Your task to perform on an android device: change text size in settings app Image 0: 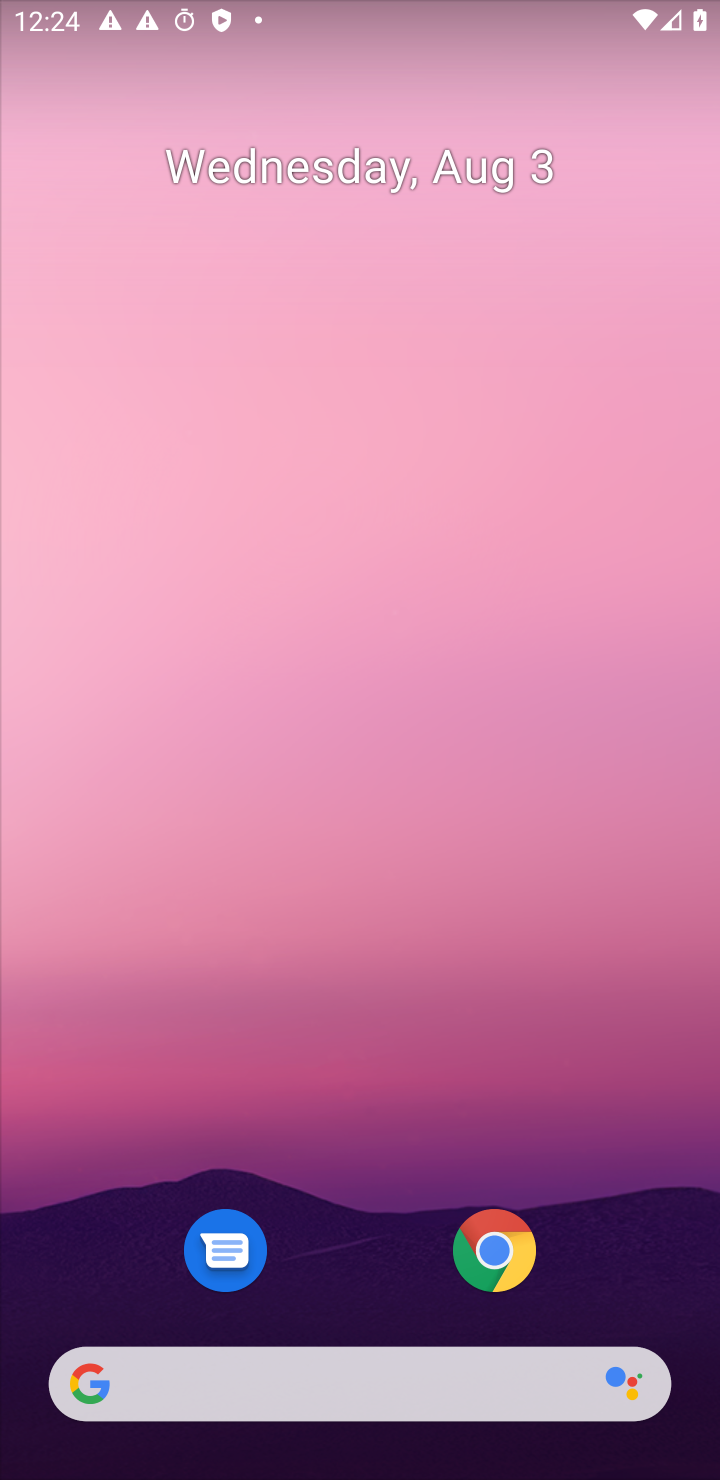
Step 0: drag from (361, 1281) to (458, 67)
Your task to perform on an android device: change text size in settings app Image 1: 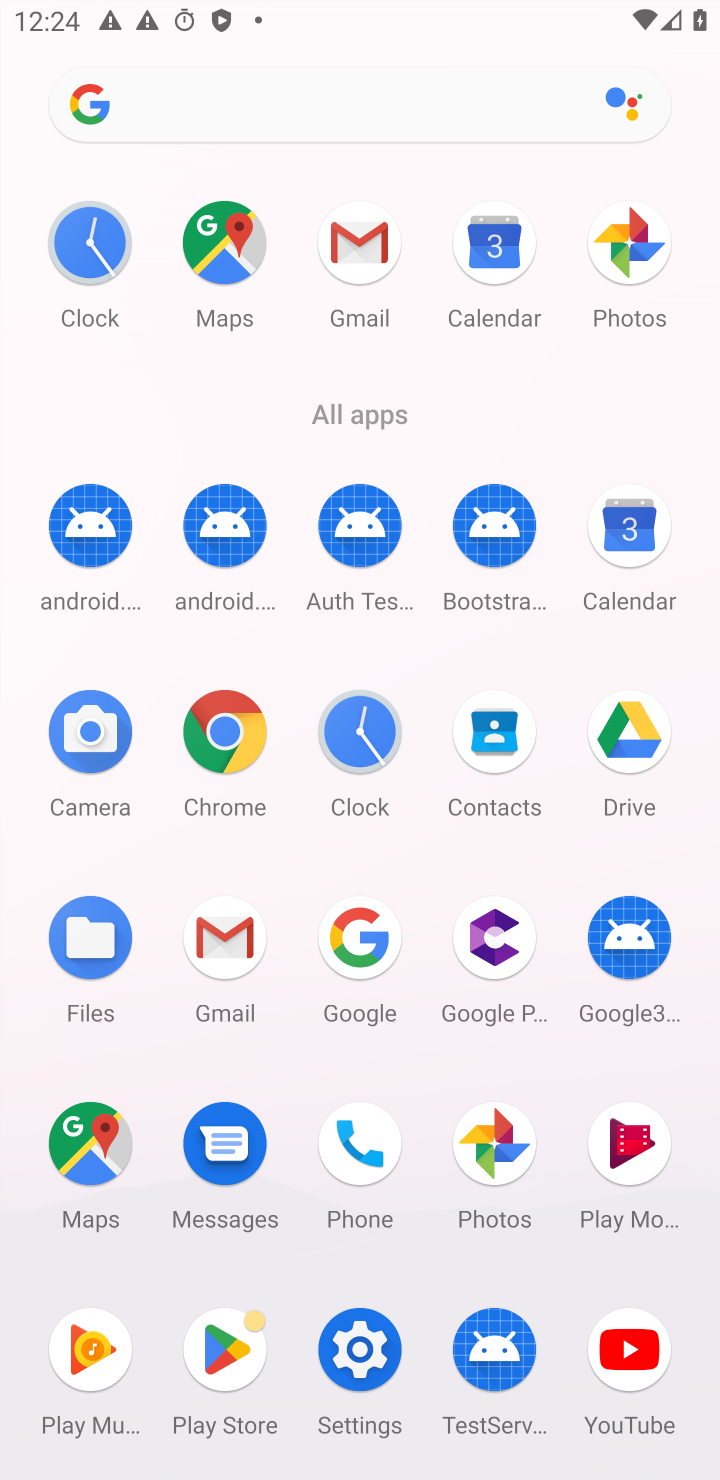
Step 1: click (371, 1332)
Your task to perform on an android device: change text size in settings app Image 2: 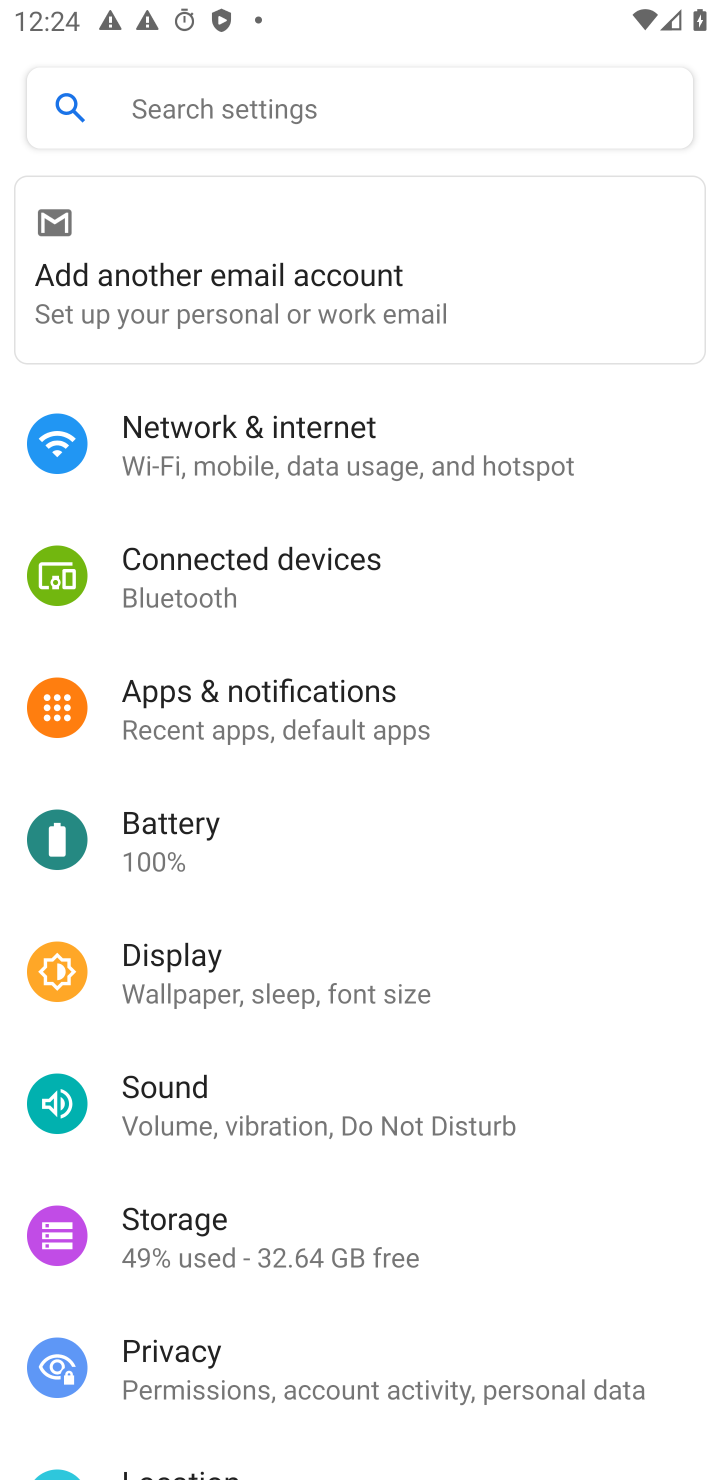
Step 2: click (324, 988)
Your task to perform on an android device: change text size in settings app Image 3: 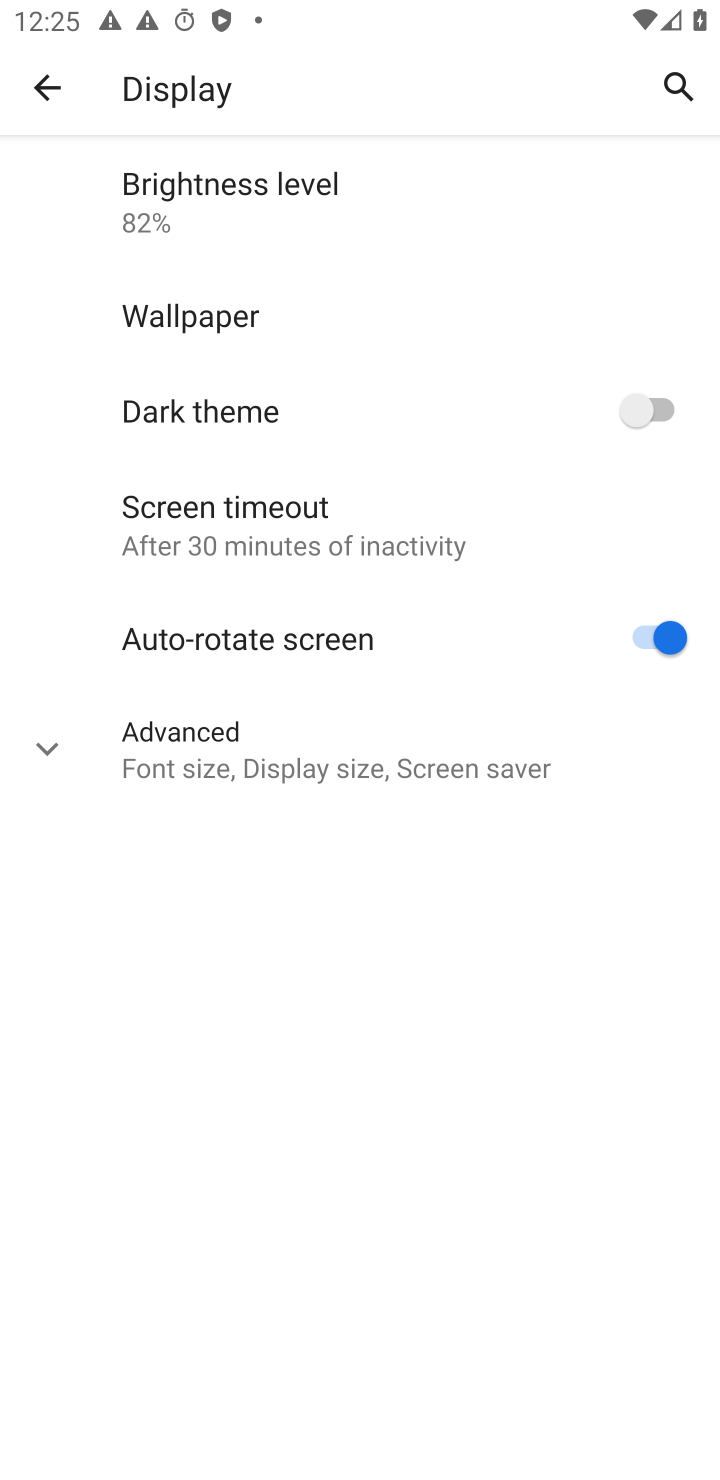
Step 3: click (363, 760)
Your task to perform on an android device: change text size in settings app Image 4: 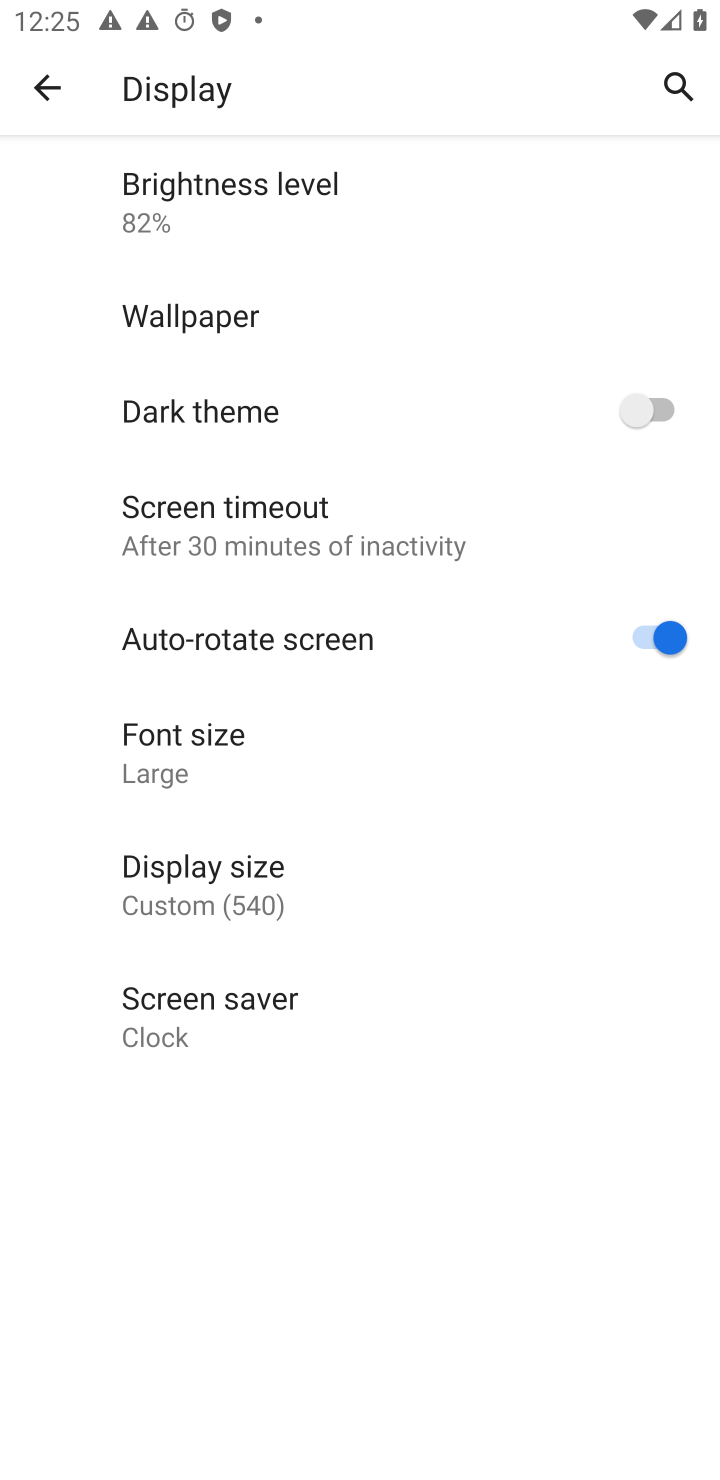
Step 4: click (302, 744)
Your task to perform on an android device: change text size in settings app Image 5: 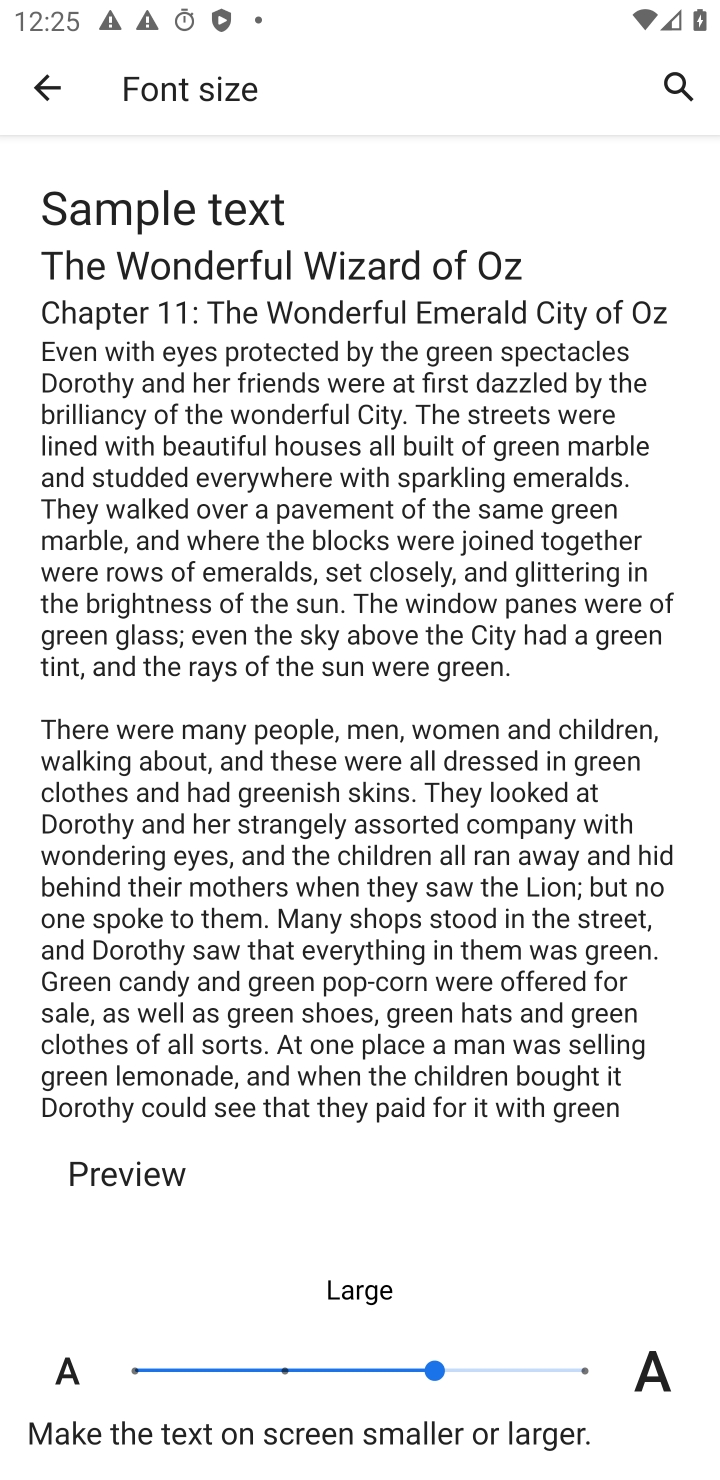
Step 5: click (599, 1373)
Your task to perform on an android device: change text size in settings app Image 6: 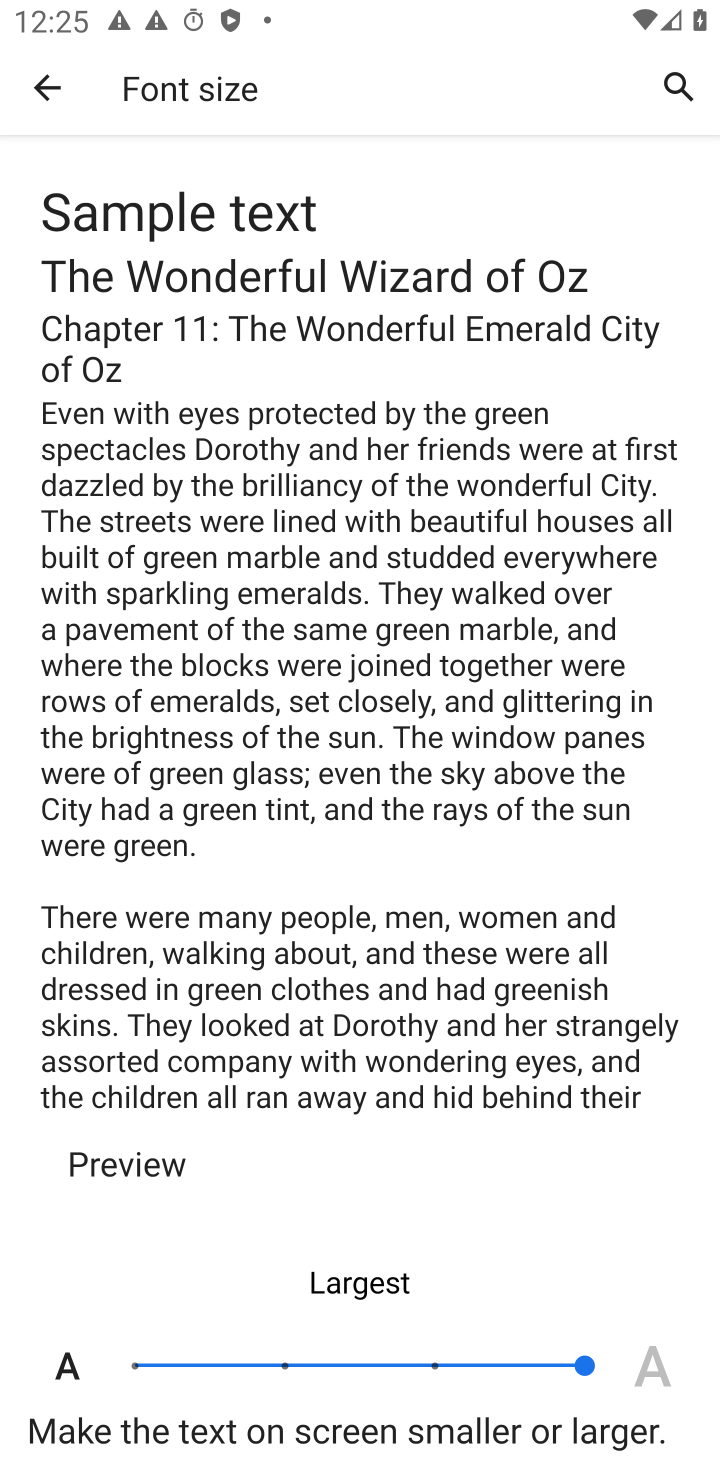
Step 6: task complete